Your task to perform on an android device: open app "PlayWell" (install if not already installed) and go to login screen Image 0: 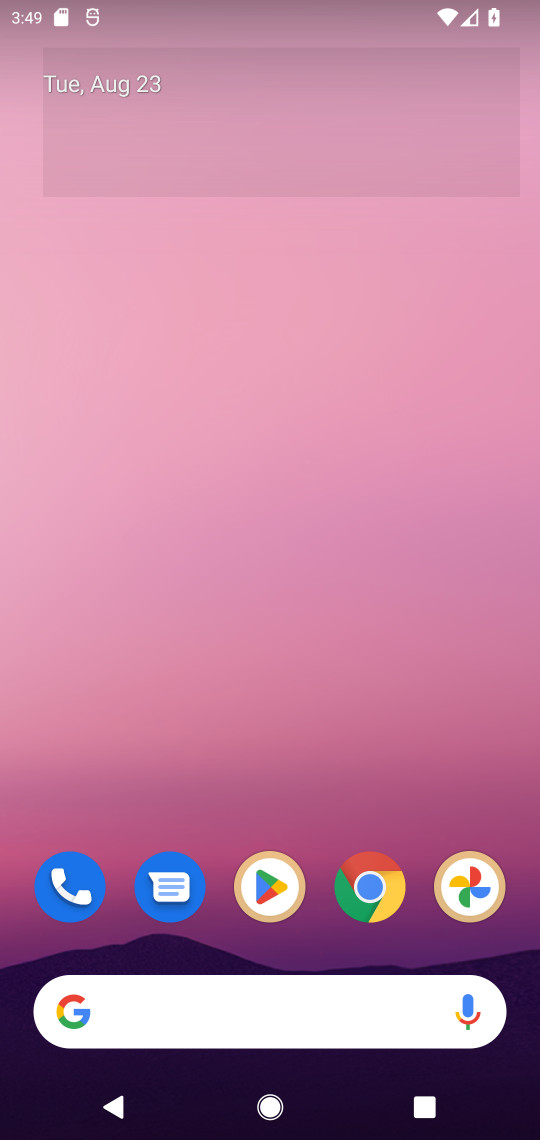
Step 0: click (263, 877)
Your task to perform on an android device: open app "PlayWell" (install if not already installed) and go to login screen Image 1: 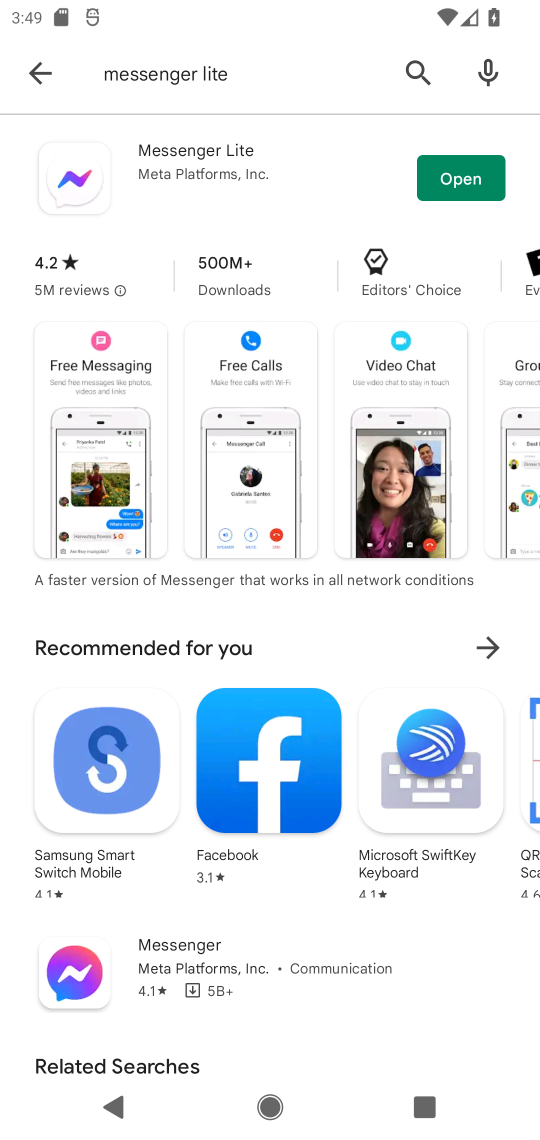
Step 1: click (38, 62)
Your task to perform on an android device: open app "PlayWell" (install if not already installed) and go to login screen Image 2: 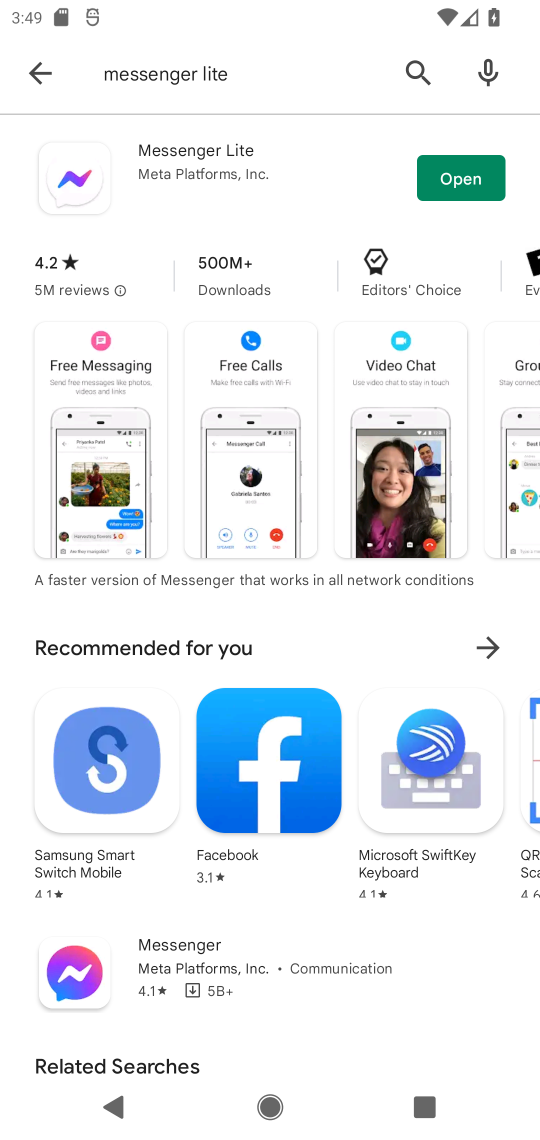
Step 2: click (33, 67)
Your task to perform on an android device: open app "PlayWell" (install if not already installed) and go to login screen Image 3: 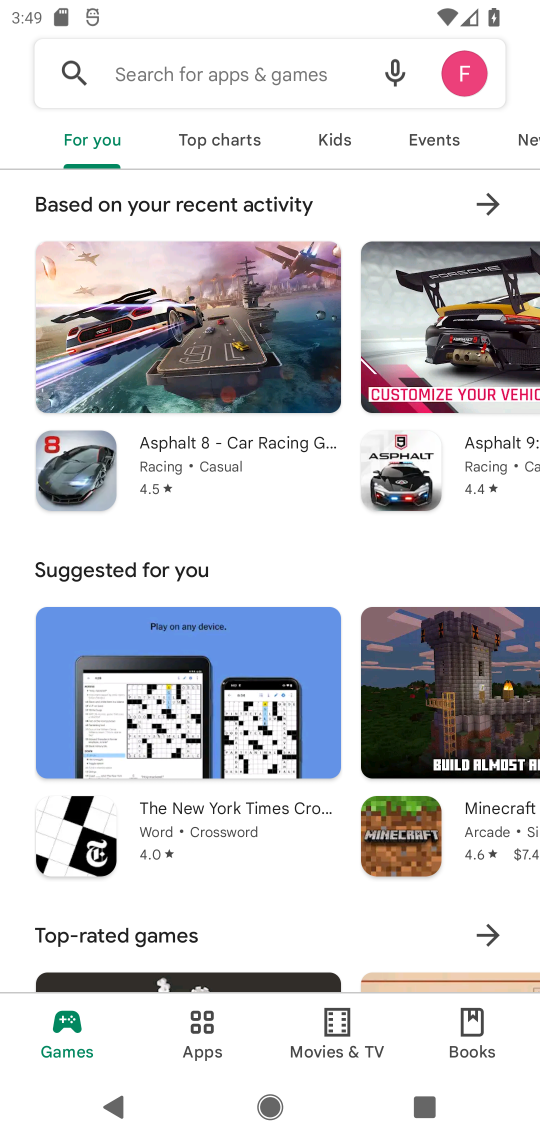
Step 3: click (253, 67)
Your task to perform on an android device: open app "PlayWell" (install if not already installed) and go to login screen Image 4: 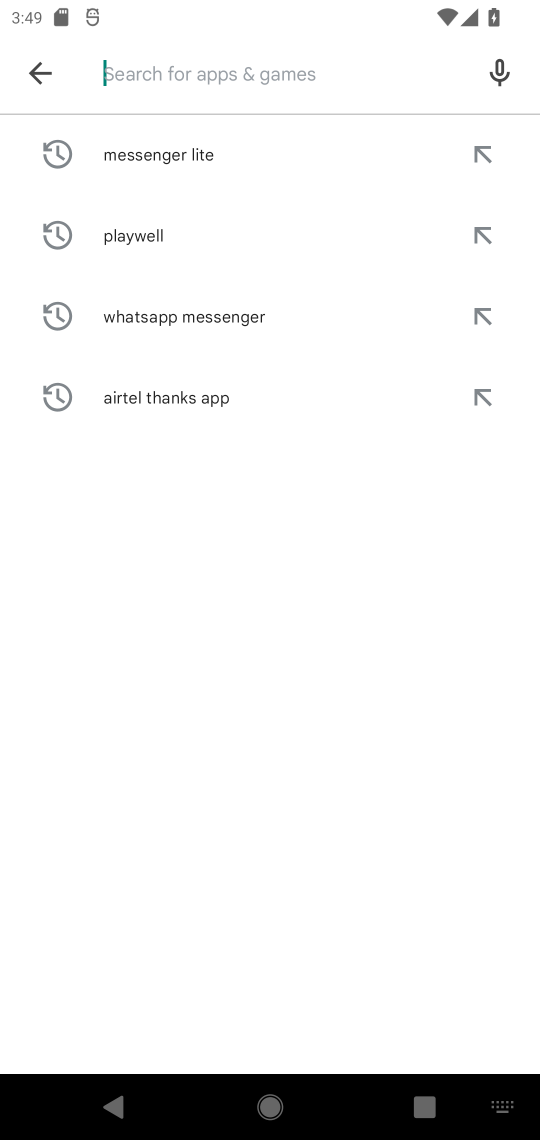
Step 4: type "PlayWell"
Your task to perform on an android device: open app "PlayWell" (install if not already installed) and go to login screen Image 5: 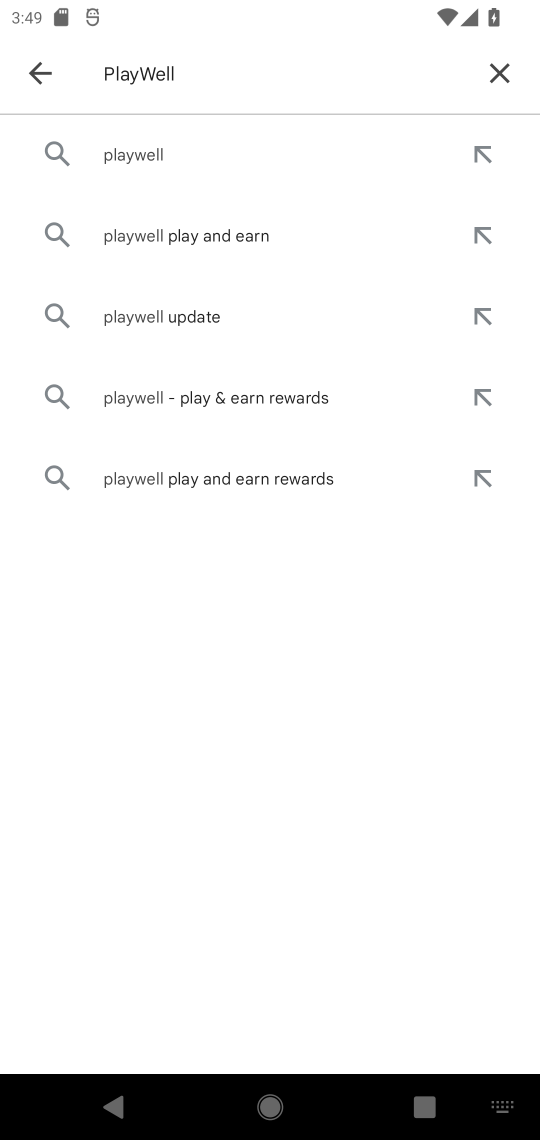
Step 5: click (129, 151)
Your task to perform on an android device: open app "PlayWell" (install if not already installed) and go to login screen Image 6: 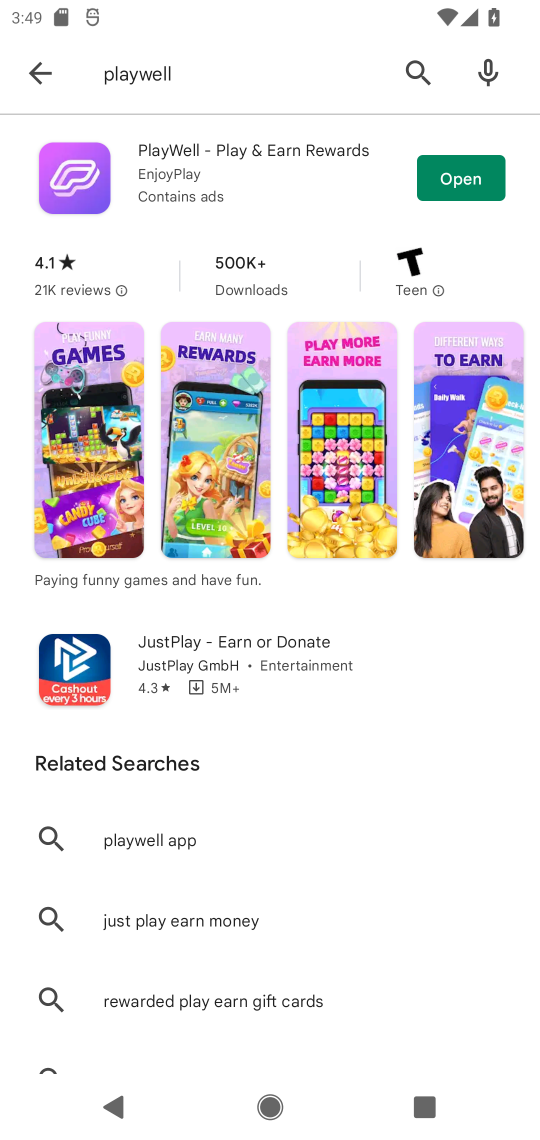
Step 6: click (451, 186)
Your task to perform on an android device: open app "PlayWell" (install if not already installed) and go to login screen Image 7: 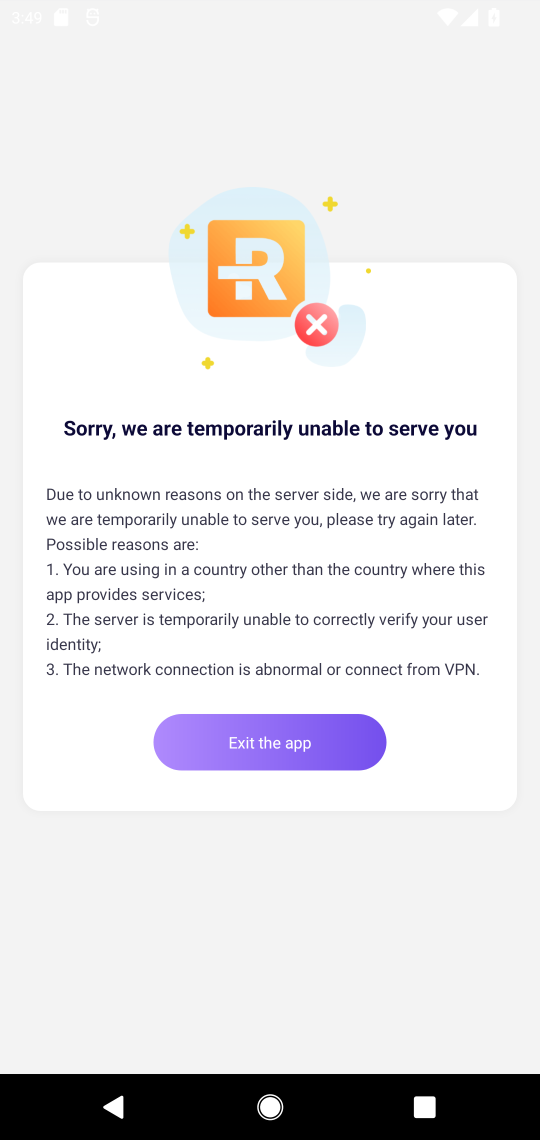
Step 7: task complete